Your task to perform on an android device: delete a single message in the gmail app Image 0: 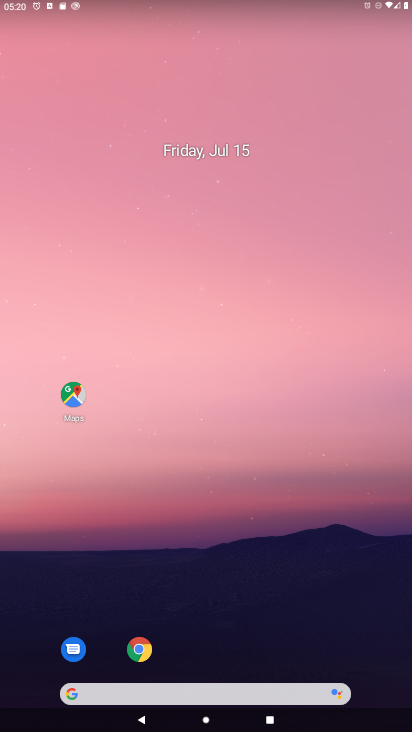
Step 0: drag from (380, 662) to (349, 88)
Your task to perform on an android device: delete a single message in the gmail app Image 1: 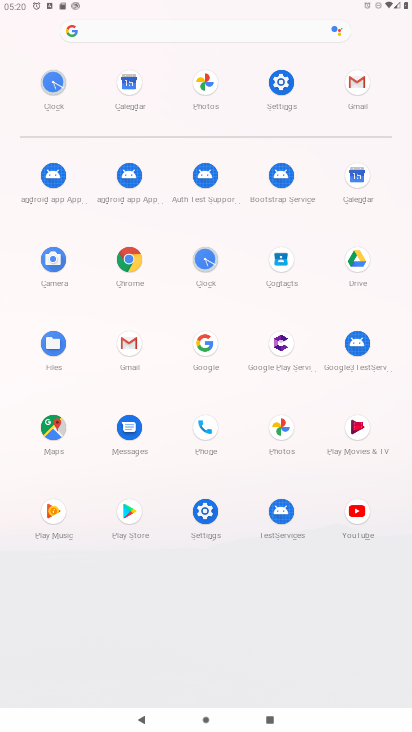
Step 1: click (128, 346)
Your task to perform on an android device: delete a single message in the gmail app Image 2: 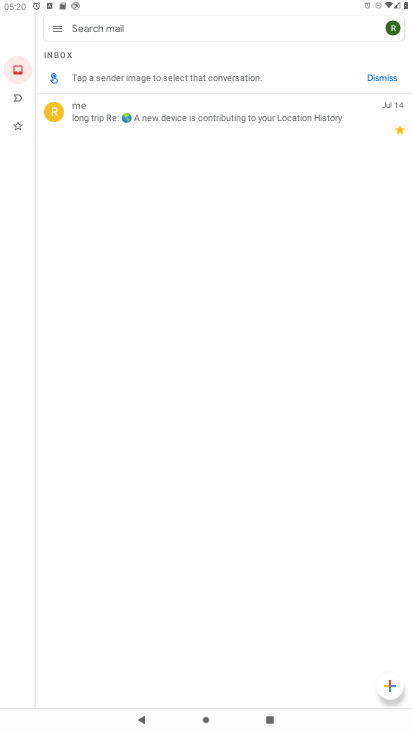
Step 2: click (55, 28)
Your task to perform on an android device: delete a single message in the gmail app Image 3: 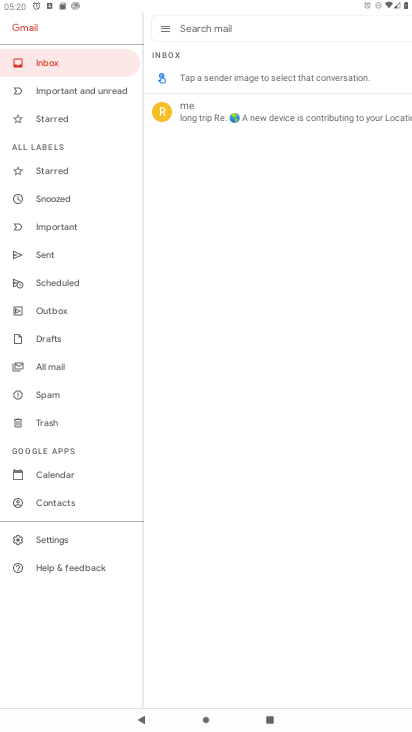
Step 3: click (50, 359)
Your task to perform on an android device: delete a single message in the gmail app Image 4: 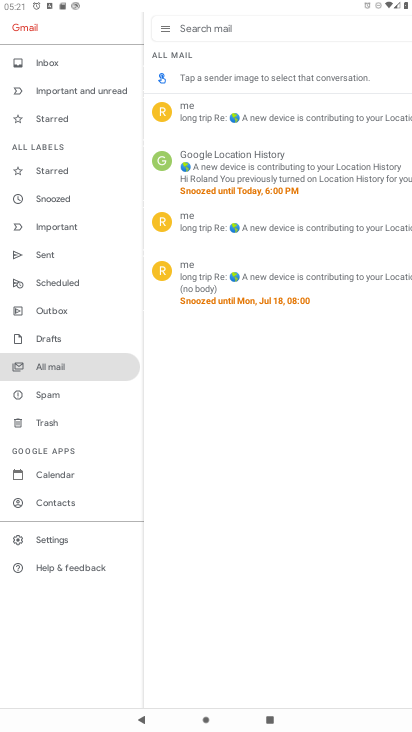
Step 4: click (317, 122)
Your task to perform on an android device: delete a single message in the gmail app Image 5: 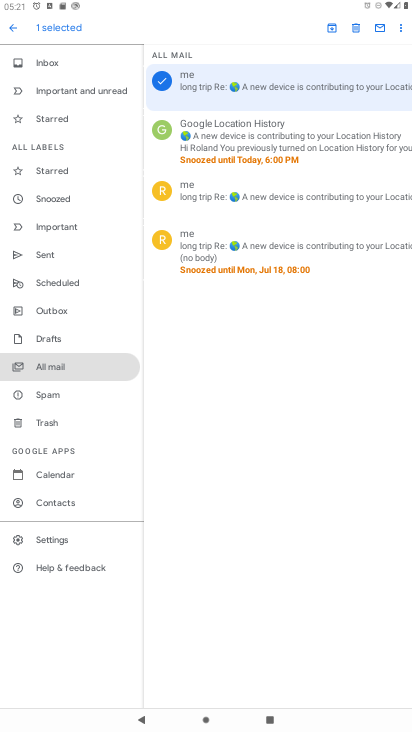
Step 5: click (355, 27)
Your task to perform on an android device: delete a single message in the gmail app Image 6: 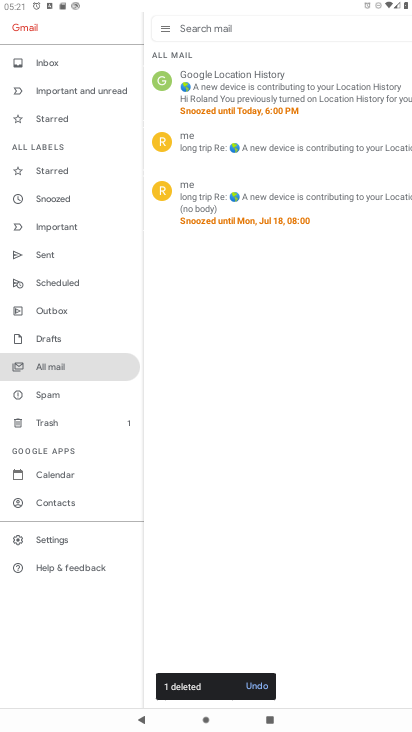
Step 6: task complete